Your task to perform on an android device: Open location settings Image 0: 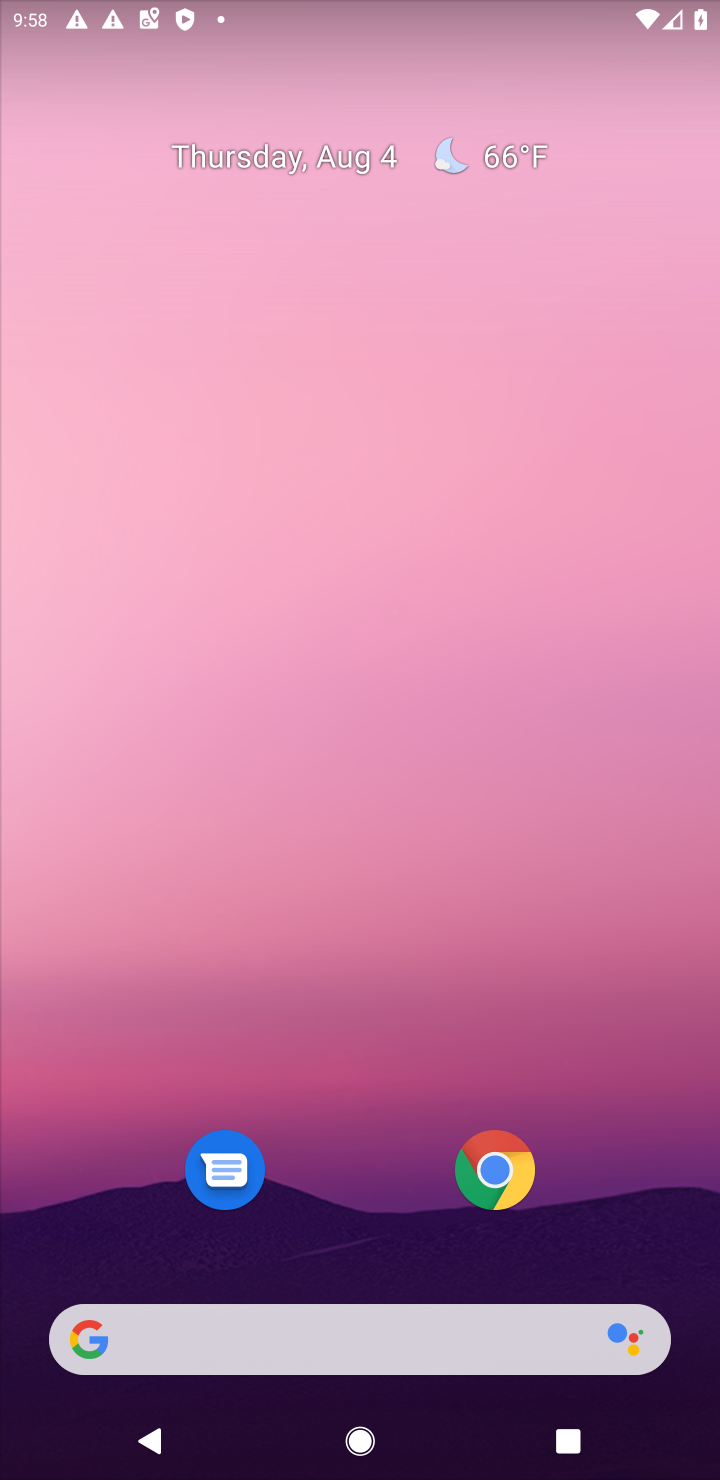
Step 0: drag from (308, 1100) to (443, 24)
Your task to perform on an android device: Open location settings Image 1: 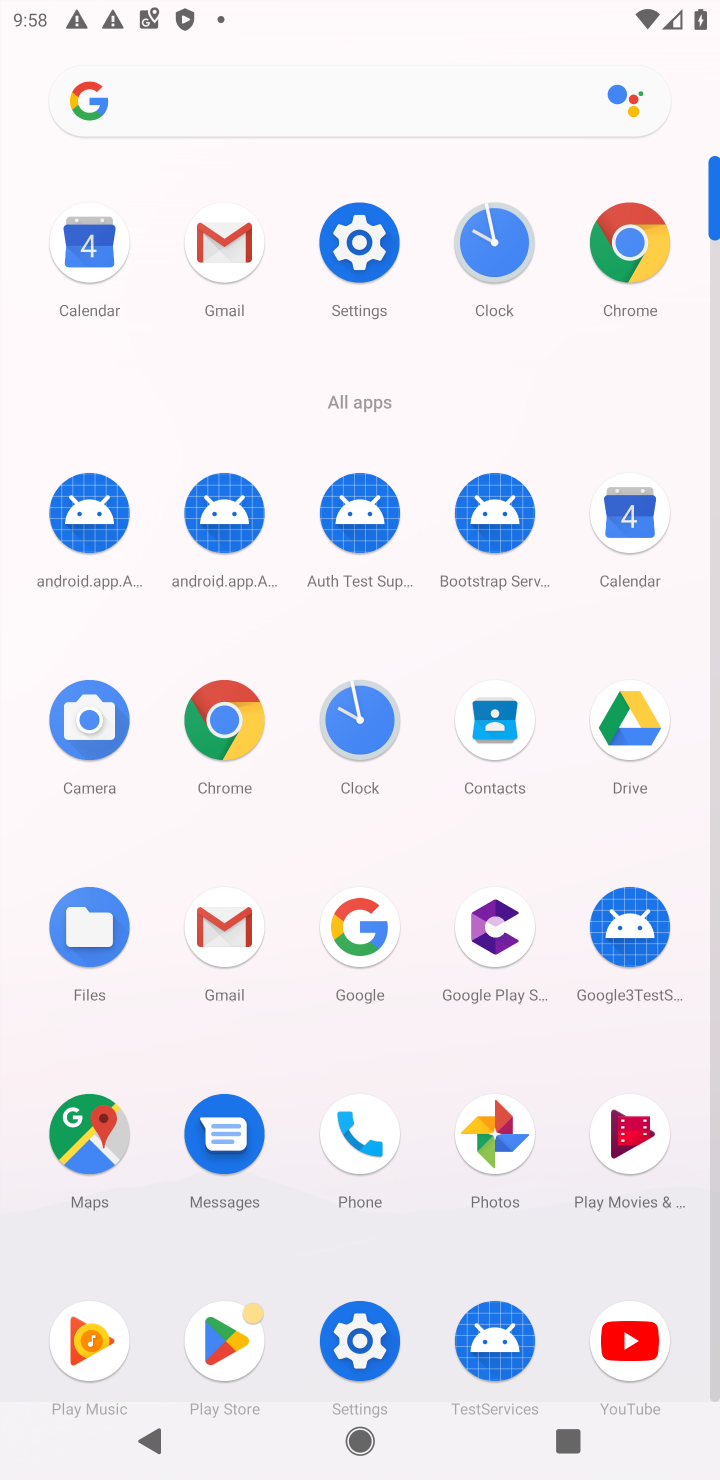
Step 1: click (375, 278)
Your task to perform on an android device: Open location settings Image 2: 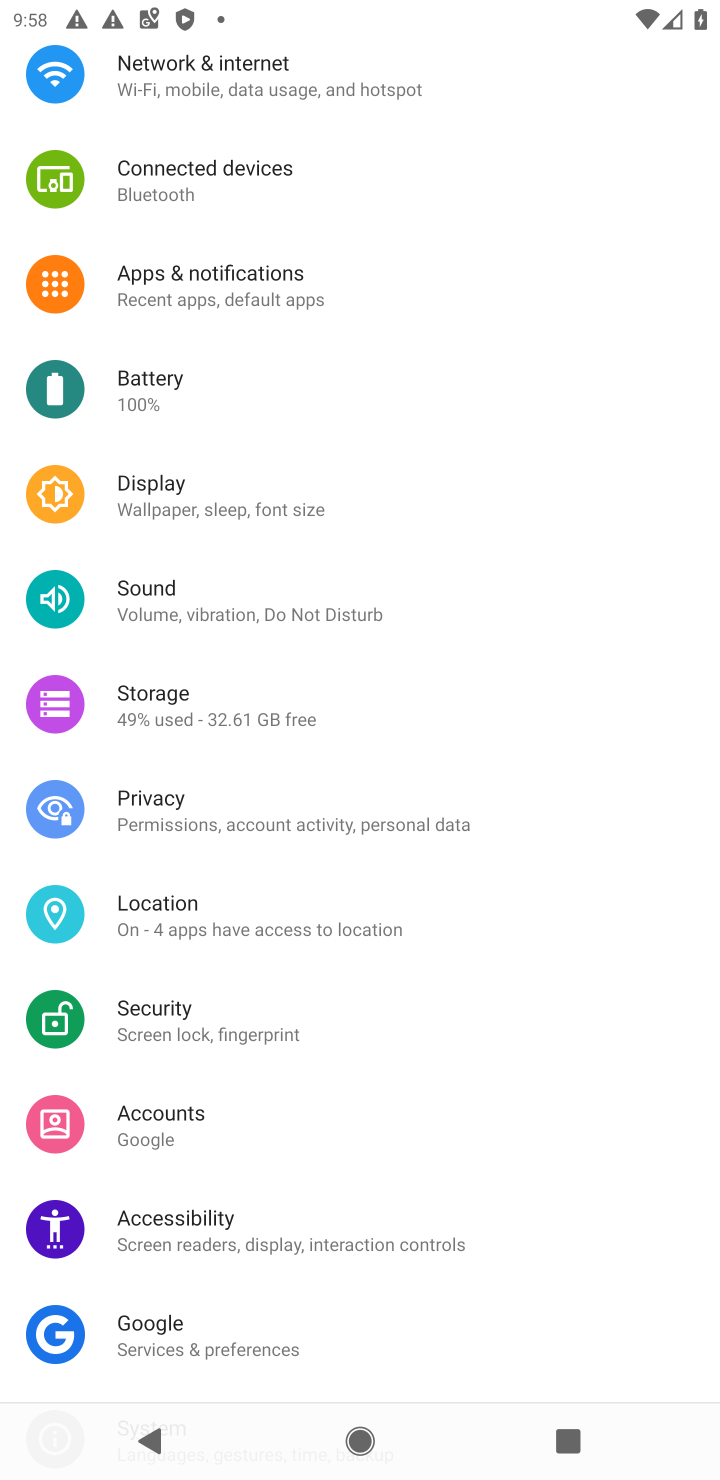
Step 2: click (193, 949)
Your task to perform on an android device: Open location settings Image 3: 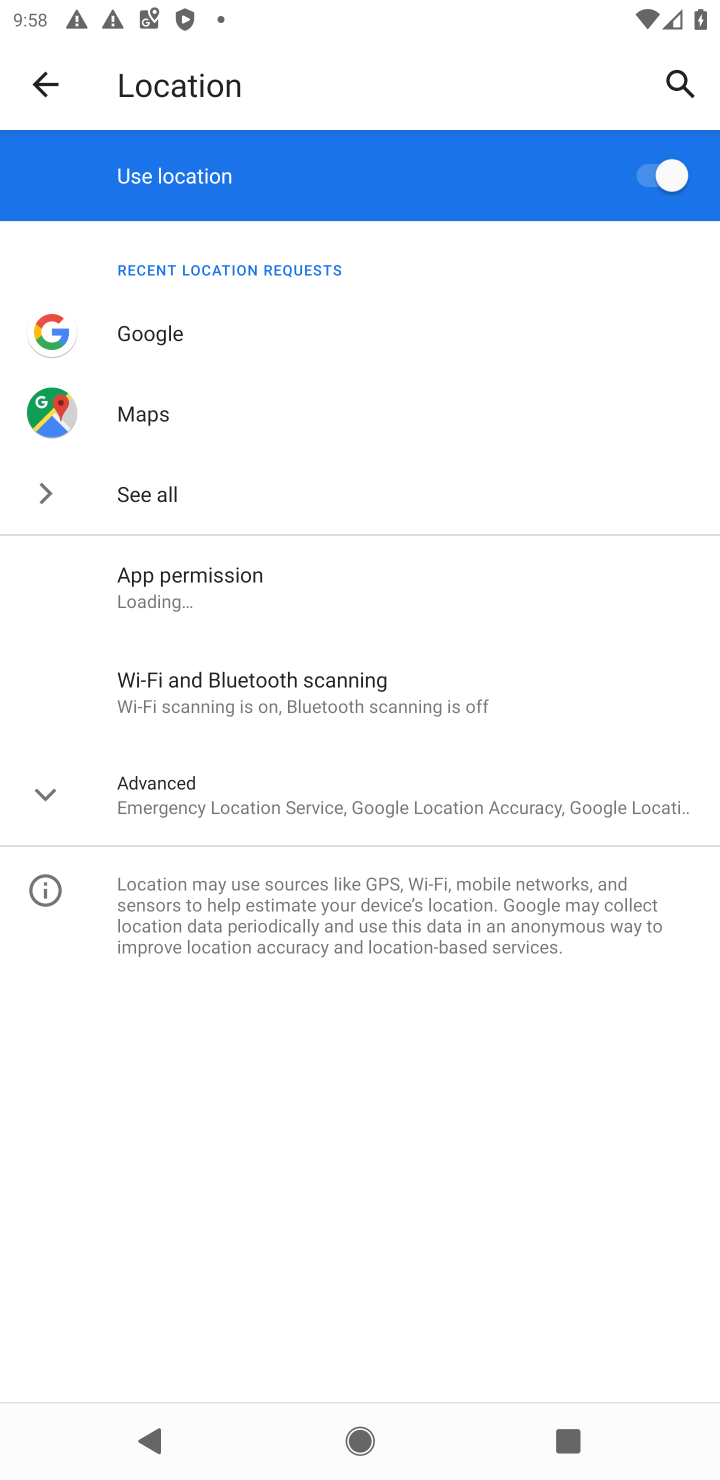
Step 3: task complete